Your task to perform on an android device: Open Maps and search for coffee Image 0: 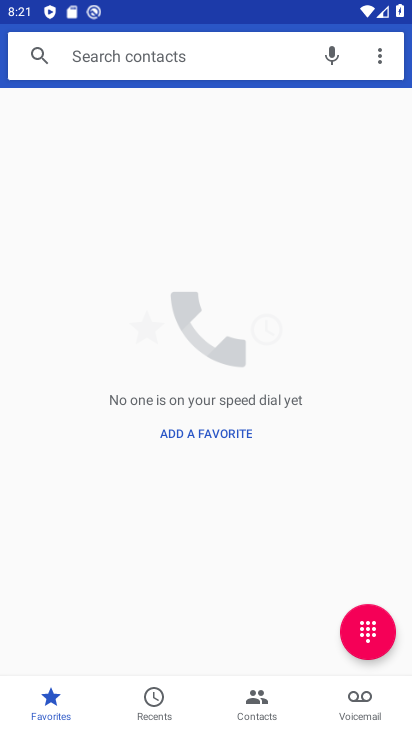
Step 0: press home button
Your task to perform on an android device: Open Maps and search for coffee Image 1: 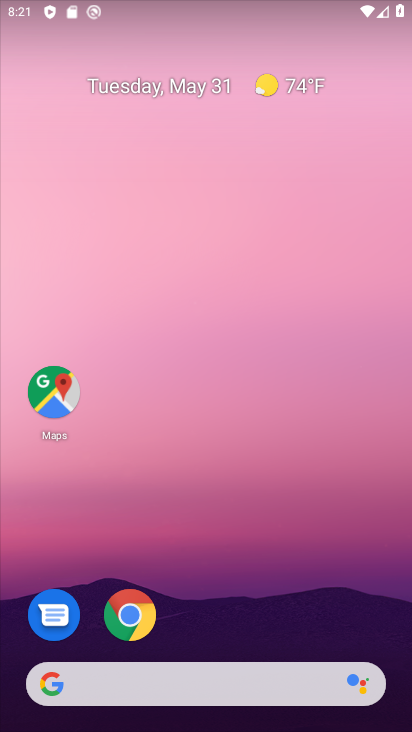
Step 1: click (73, 394)
Your task to perform on an android device: Open Maps and search for coffee Image 2: 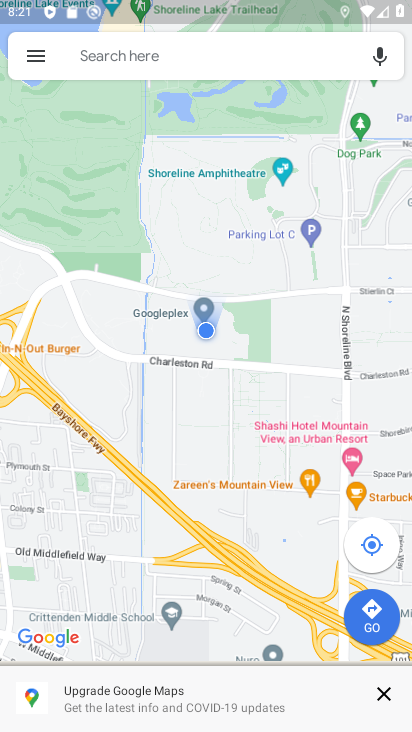
Step 2: click (102, 58)
Your task to perform on an android device: Open Maps and search for coffee Image 3: 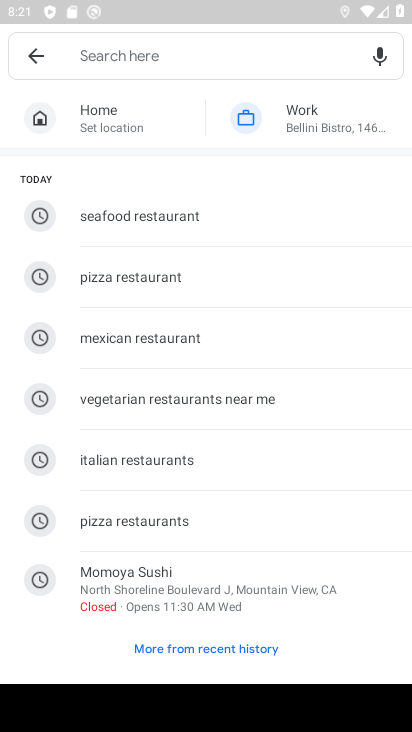
Step 3: type "coffee"
Your task to perform on an android device: Open Maps and search for coffee Image 4: 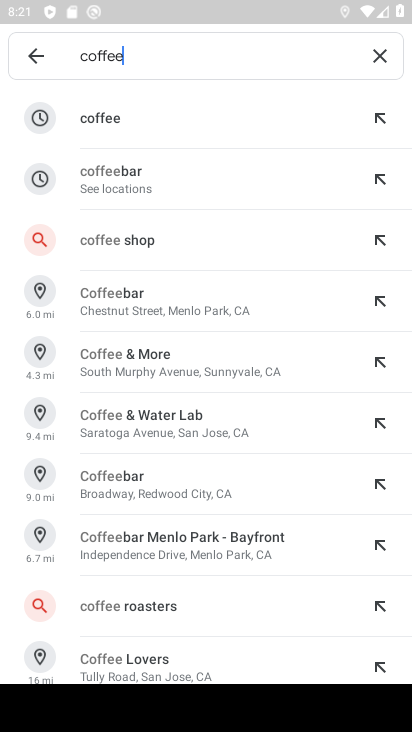
Step 4: click (172, 127)
Your task to perform on an android device: Open Maps and search for coffee Image 5: 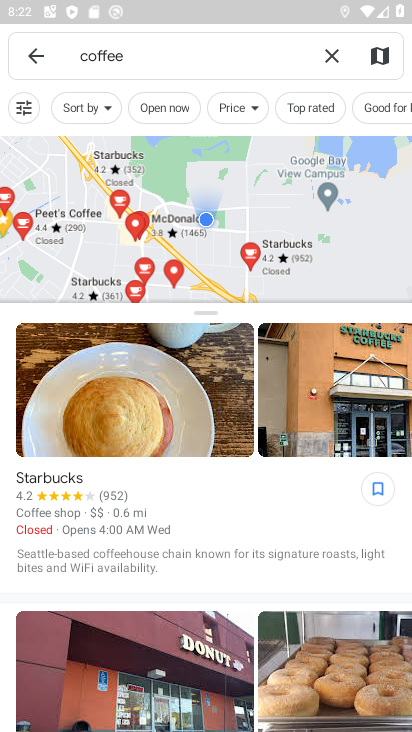
Step 5: task complete